Your task to perform on an android device: What's on my calendar tomorrow? Image 0: 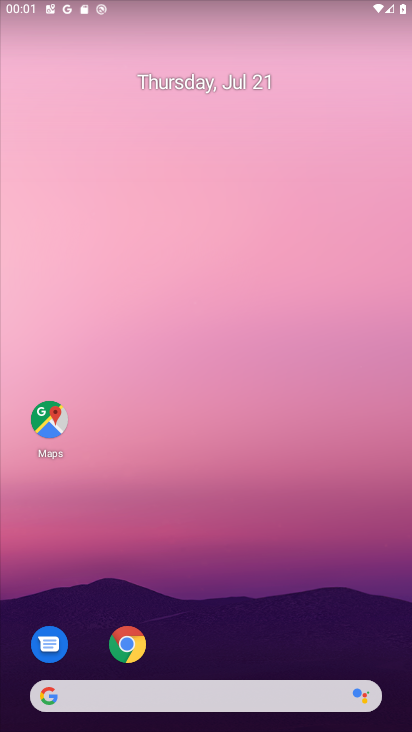
Step 0: drag from (237, 692) to (158, 139)
Your task to perform on an android device: What's on my calendar tomorrow? Image 1: 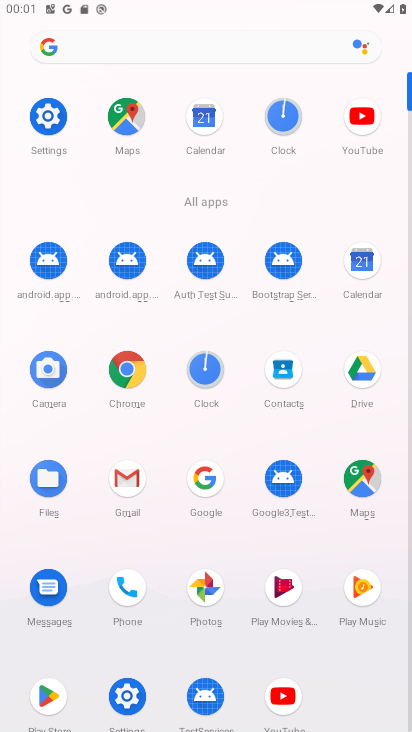
Step 1: click (361, 273)
Your task to perform on an android device: What's on my calendar tomorrow? Image 2: 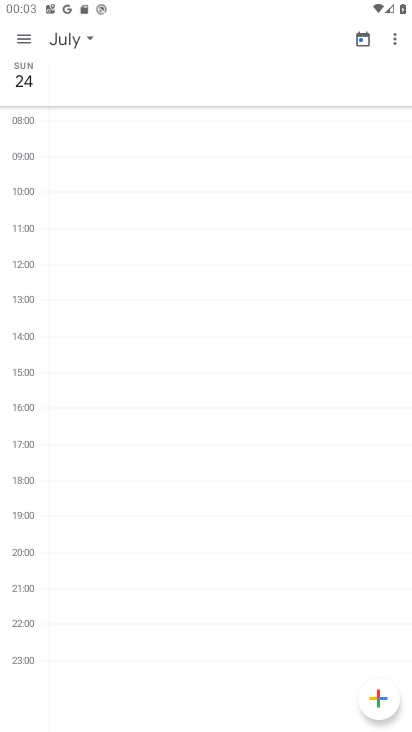
Step 2: click (56, 28)
Your task to perform on an android device: What's on my calendar tomorrow? Image 3: 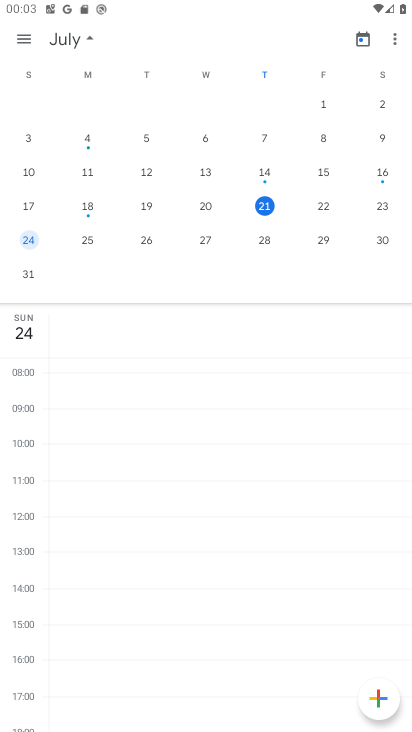
Step 3: click (323, 206)
Your task to perform on an android device: What's on my calendar tomorrow? Image 4: 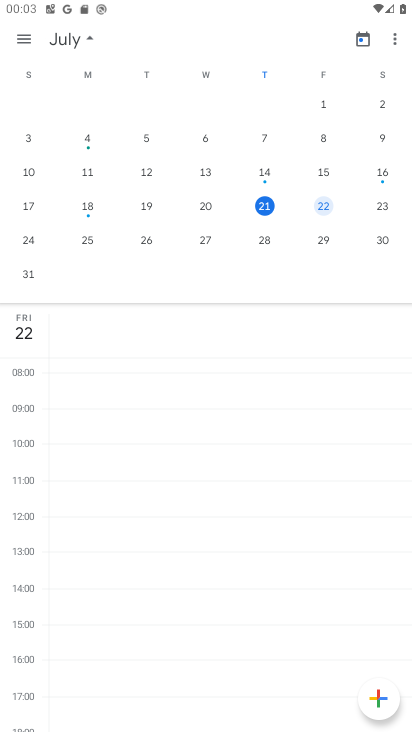
Step 4: task complete